Your task to perform on an android device: turn off data saver in the chrome app Image 0: 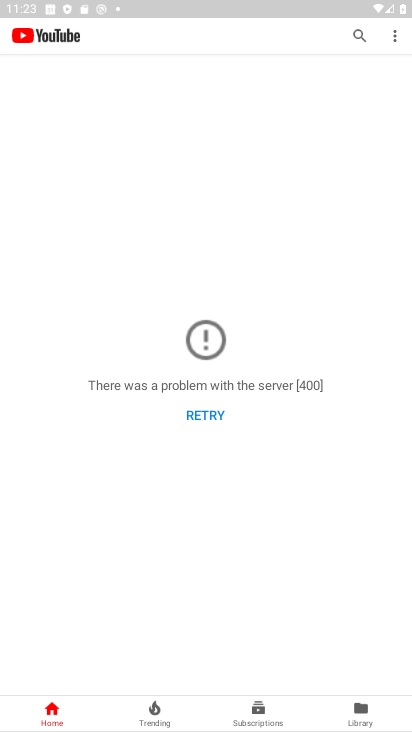
Step 0: press home button
Your task to perform on an android device: turn off data saver in the chrome app Image 1: 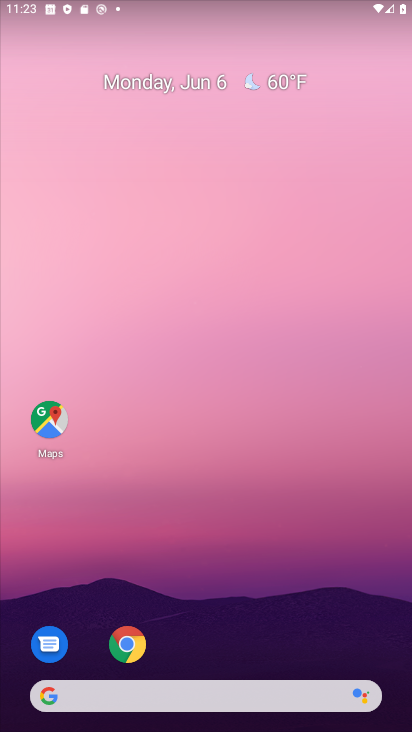
Step 1: drag from (117, 723) to (17, 91)
Your task to perform on an android device: turn off data saver in the chrome app Image 2: 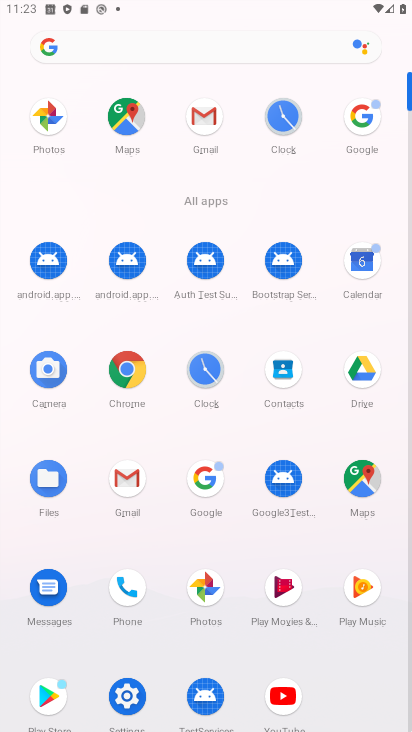
Step 2: press home button
Your task to perform on an android device: turn off data saver in the chrome app Image 3: 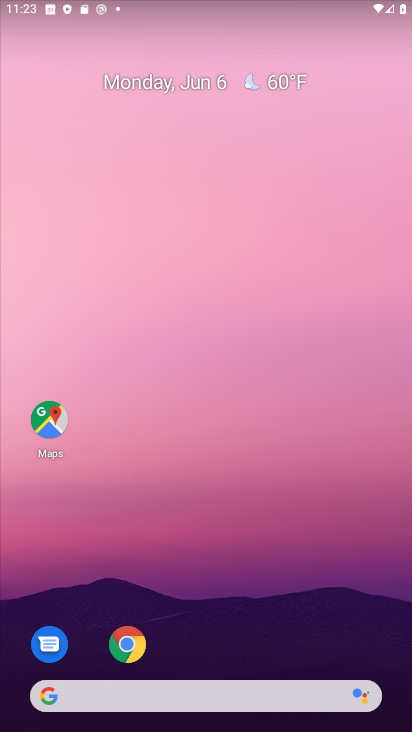
Step 3: click (133, 659)
Your task to perform on an android device: turn off data saver in the chrome app Image 4: 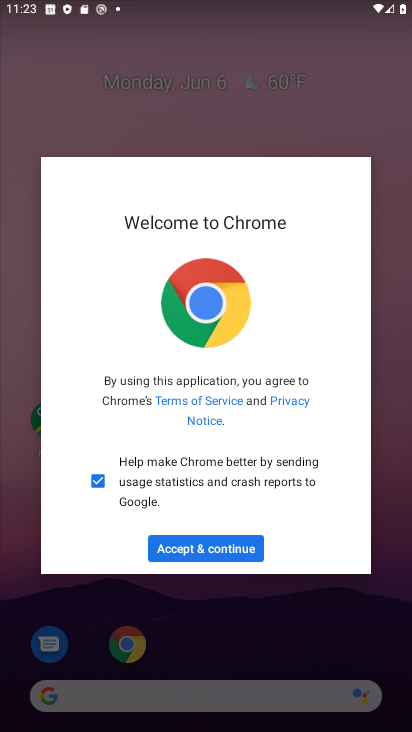
Step 4: click (207, 558)
Your task to perform on an android device: turn off data saver in the chrome app Image 5: 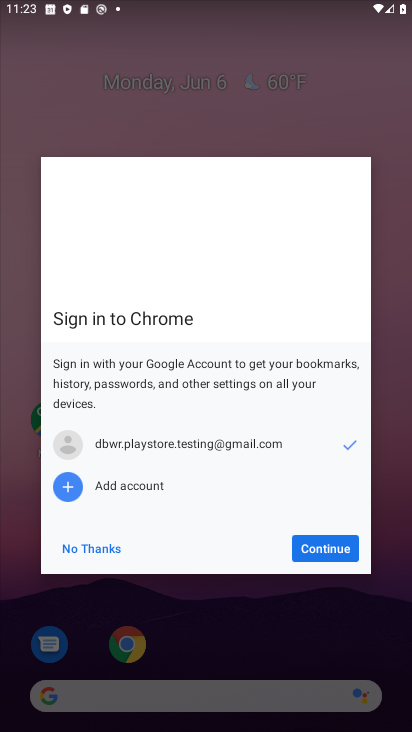
Step 5: click (352, 561)
Your task to perform on an android device: turn off data saver in the chrome app Image 6: 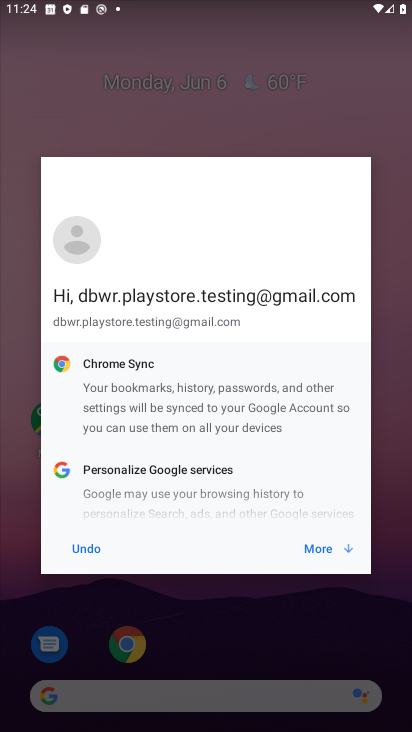
Step 6: click (325, 556)
Your task to perform on an android device: turn off data saver in the chrome app Image 7: 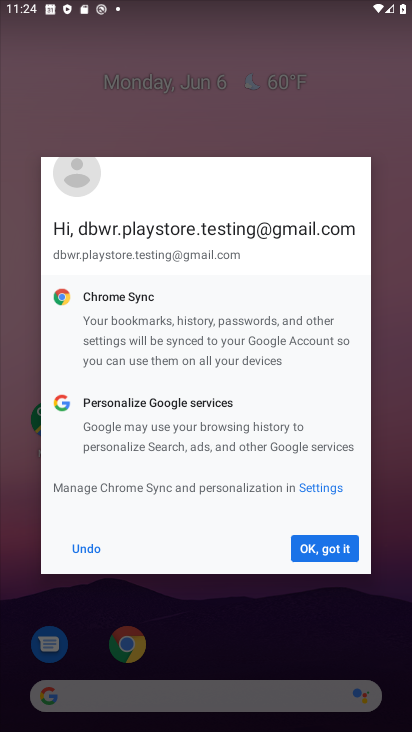
Step 7: click (327, 555)
Your task to perform on an android device: turn off data saver in the chrome app Image 8: 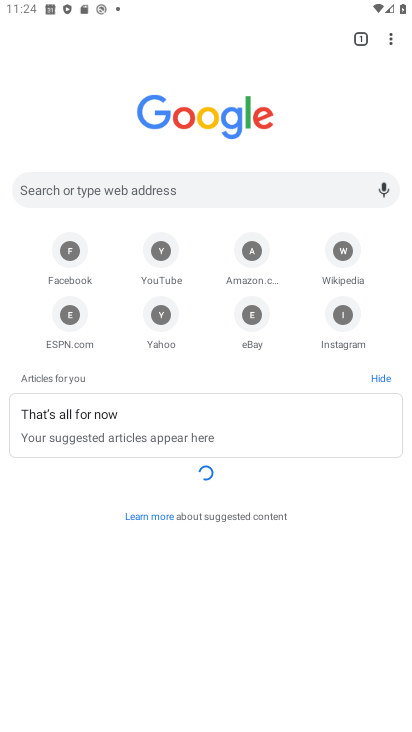
Step 8: click (392, 45)
Your task to perform on an android device: turn off data saver in the chrome app Image 9: 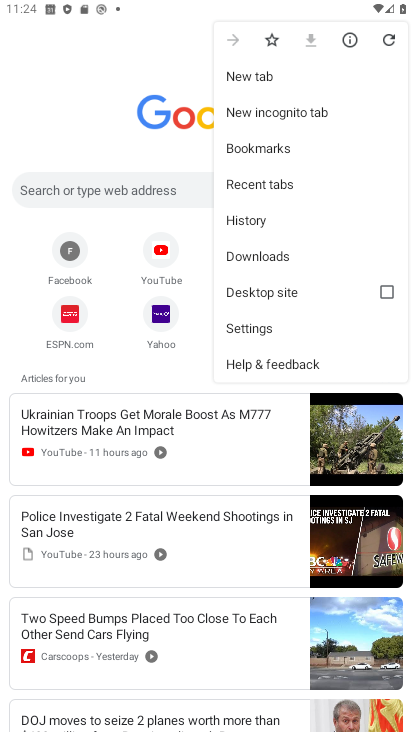
Step 9: click (264, 332)
Your task to perform on an android device: turn off data saver in the chrome app Image 10: 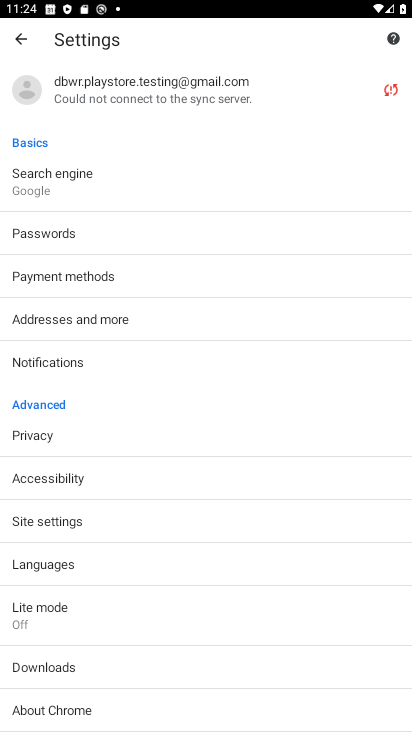
Step 10: click (31, 619)
Your task to perform on an android device: turn off data saver in the chrome app Image 11: 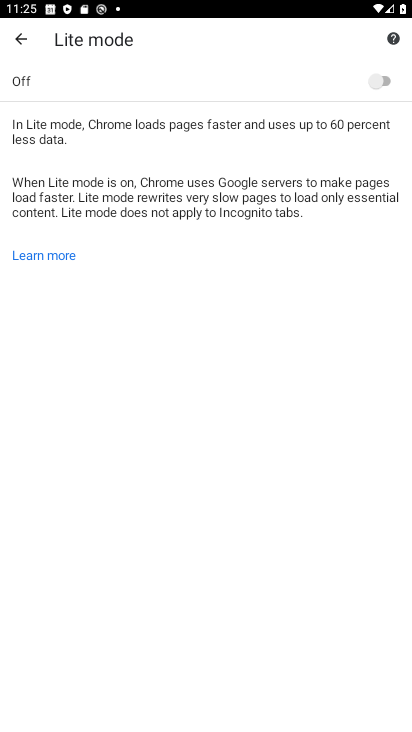
Step 11: task complete